Your task to perform on an android device: Do I have any events tomorrow? Image 0: 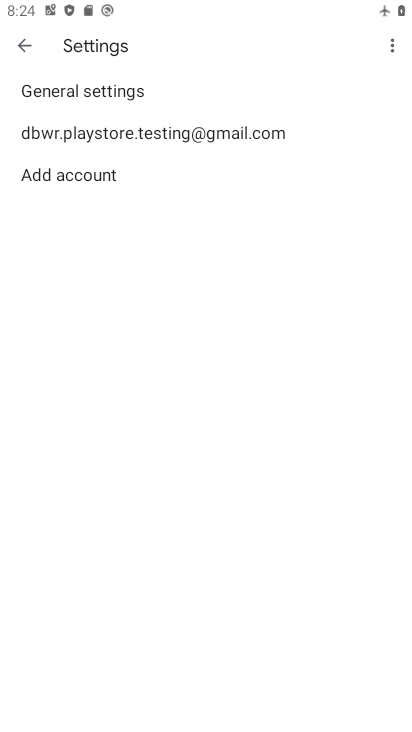
Step 0: press home button
Your task to perform on an android device: Do I have any events tomorrow? Image 1: 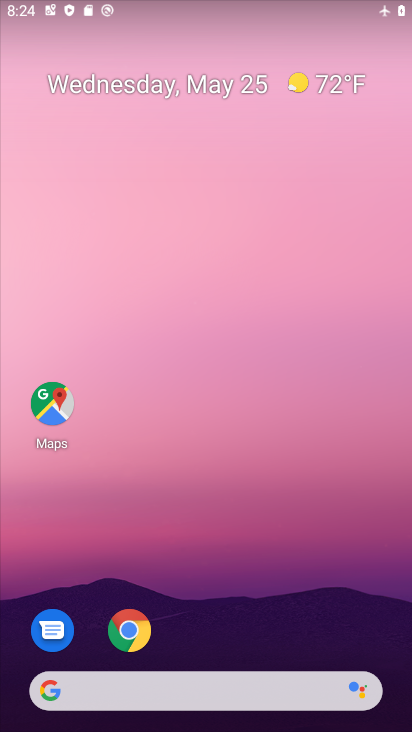
Step 1: drag from (198, 641) to (212, 269)
Your task to perform on an android device: Do I have any events tomorrow? Image 2: 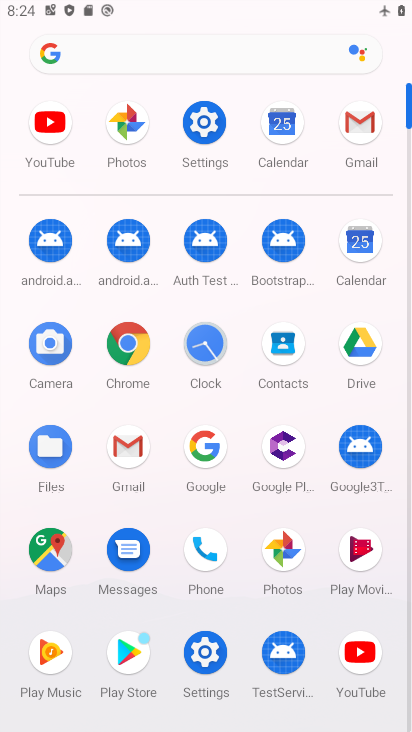
Step 2: click (291, 135)
Your task to perform on an android device: Do I have any events tomorrow? Image 3: 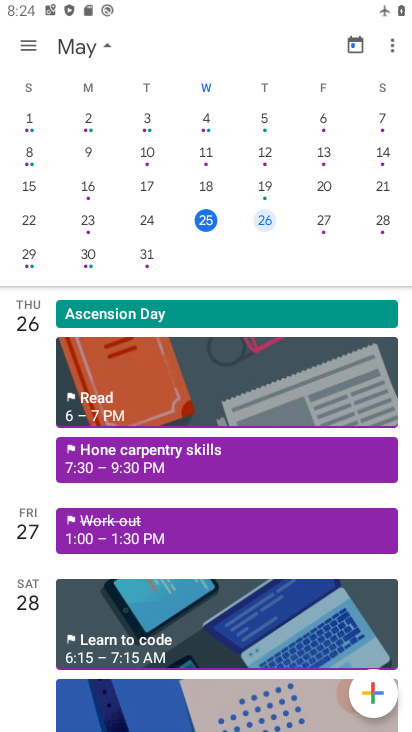
Step 3: click (260, 212)
Your task to perform on an android device: Do I have any events tomorrow? Image 4: 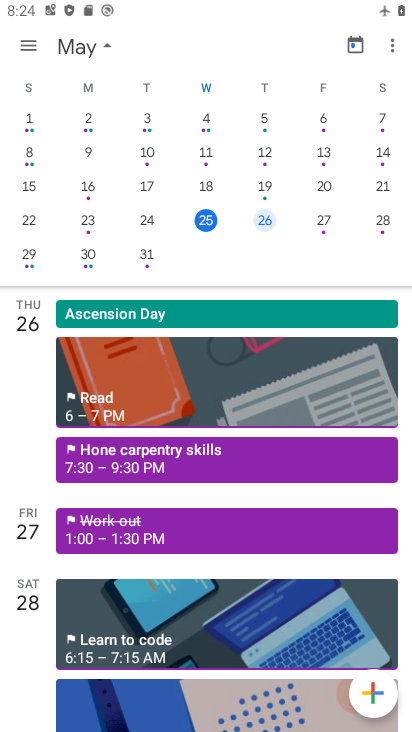
Step 4: task complete